Your task to perform on an android device: open app "Microsoft Excel" (install if not already installed) Image 0: 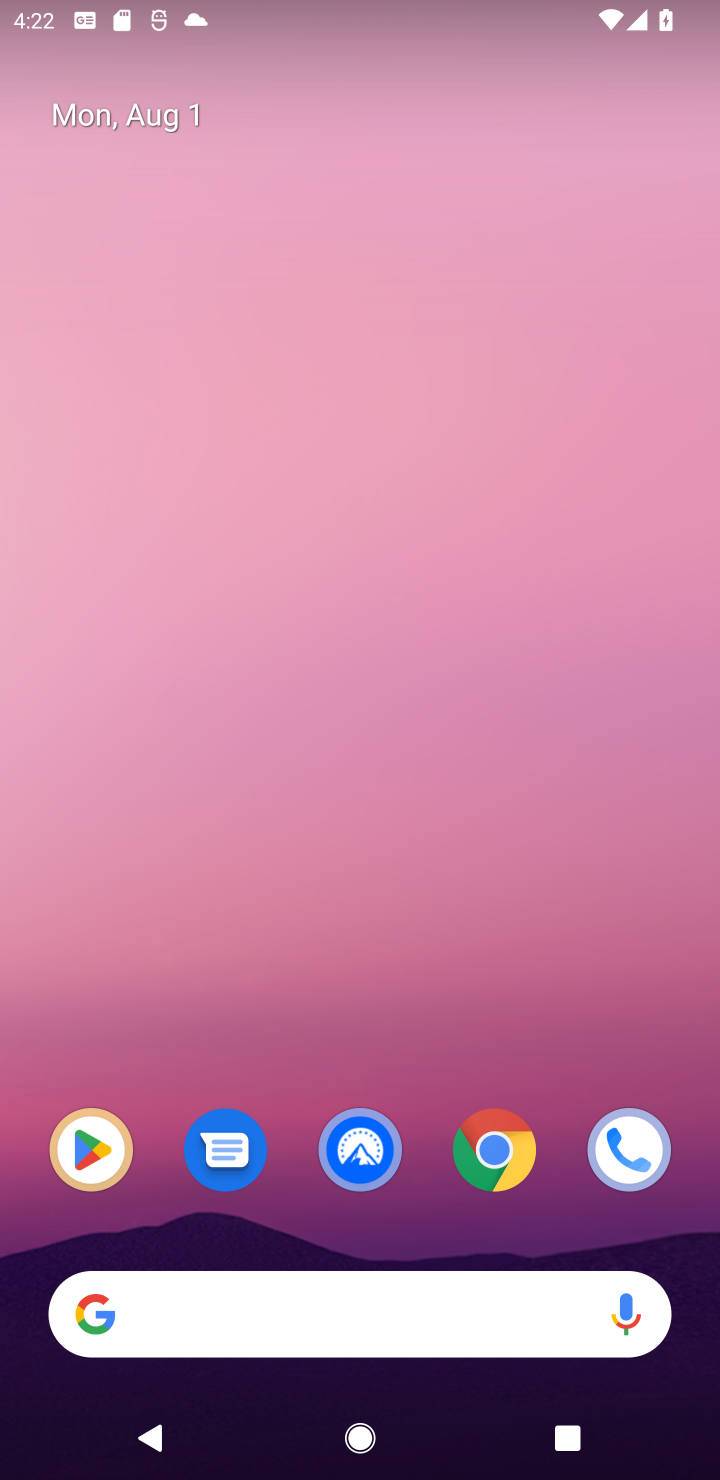
Step 0: click (83, 1169)
Your task to perform on an android device: open app "Microsoft Excel" (install if not already installed) Image 1: 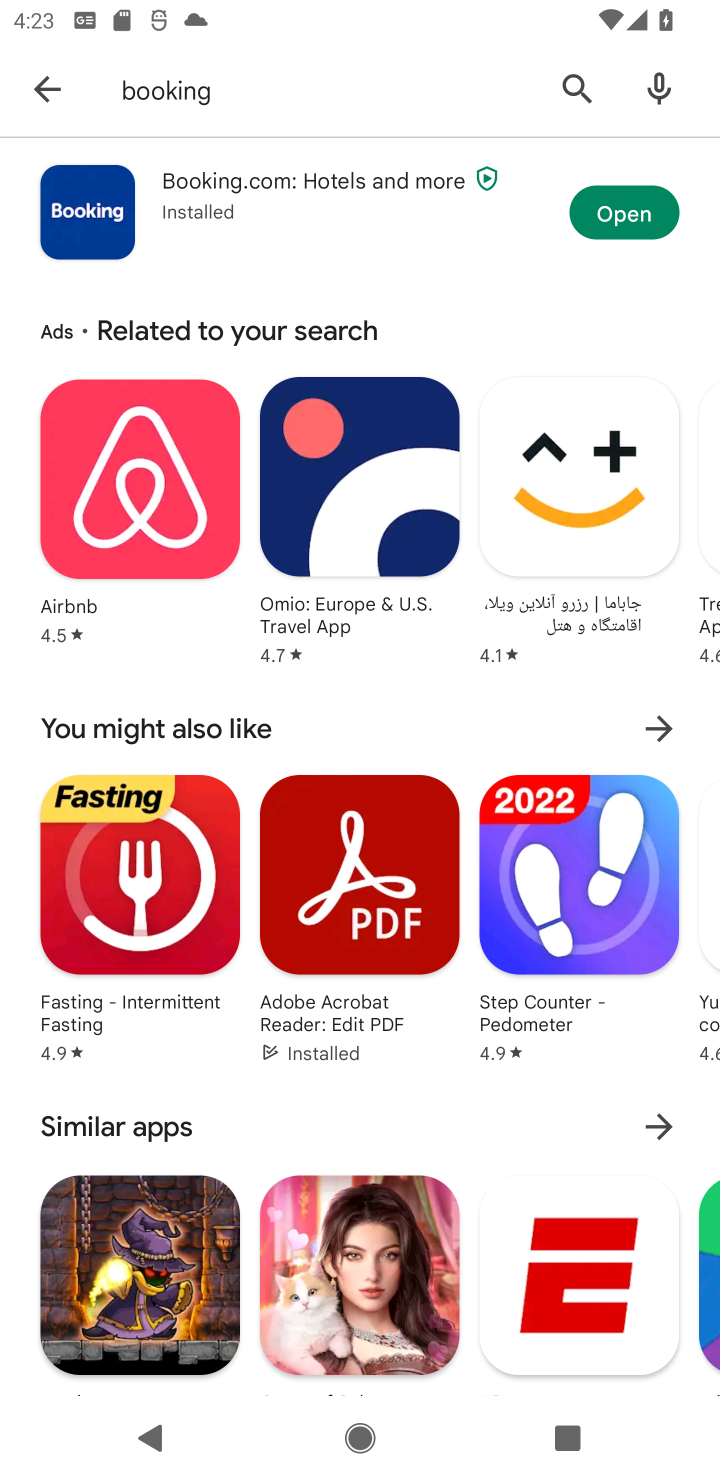
Step 1: click (565, 104)
Your task to perform on an android device: open app "Microsoft Excel" (install if not already installed) Image 2: 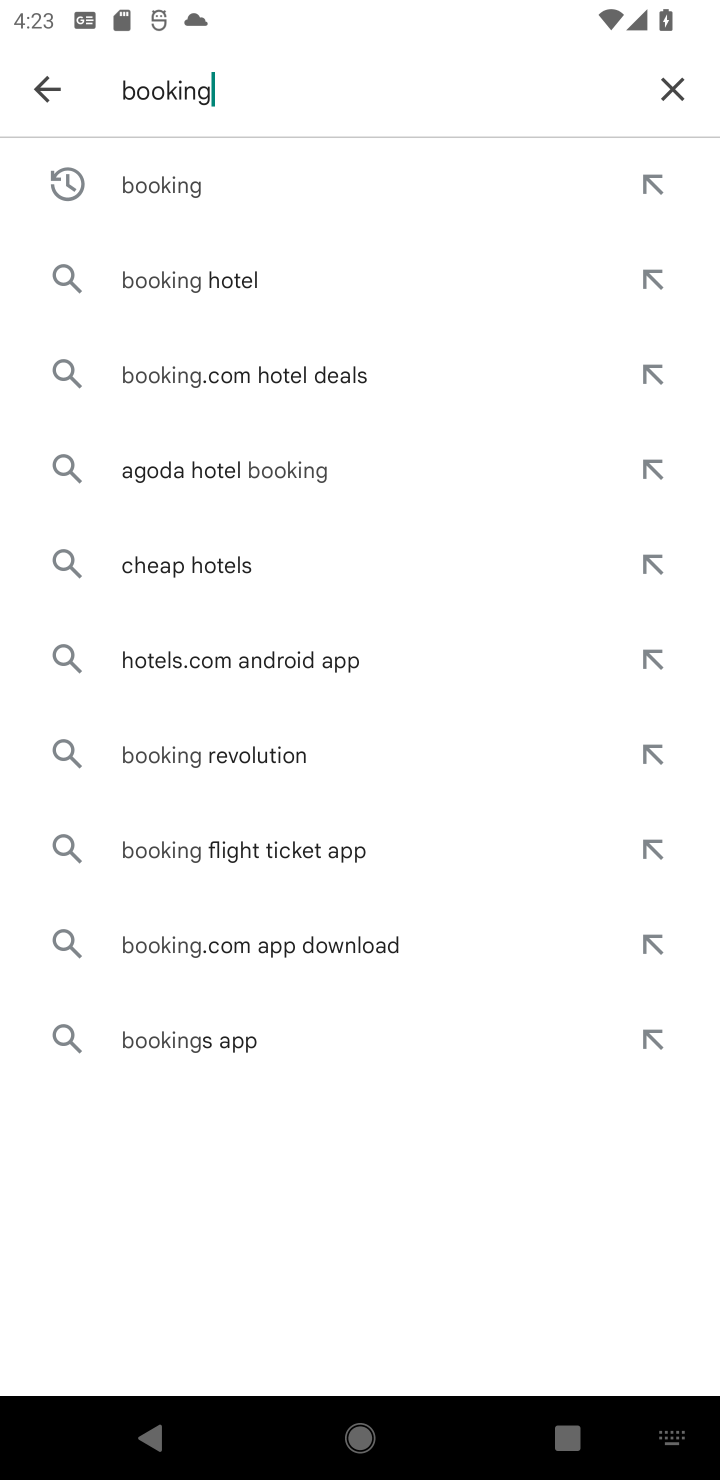
Step 2: click (668, 91)
Your task to perform on an android device: open app "Microsoft Excel" (install if not already installed) Image 3: 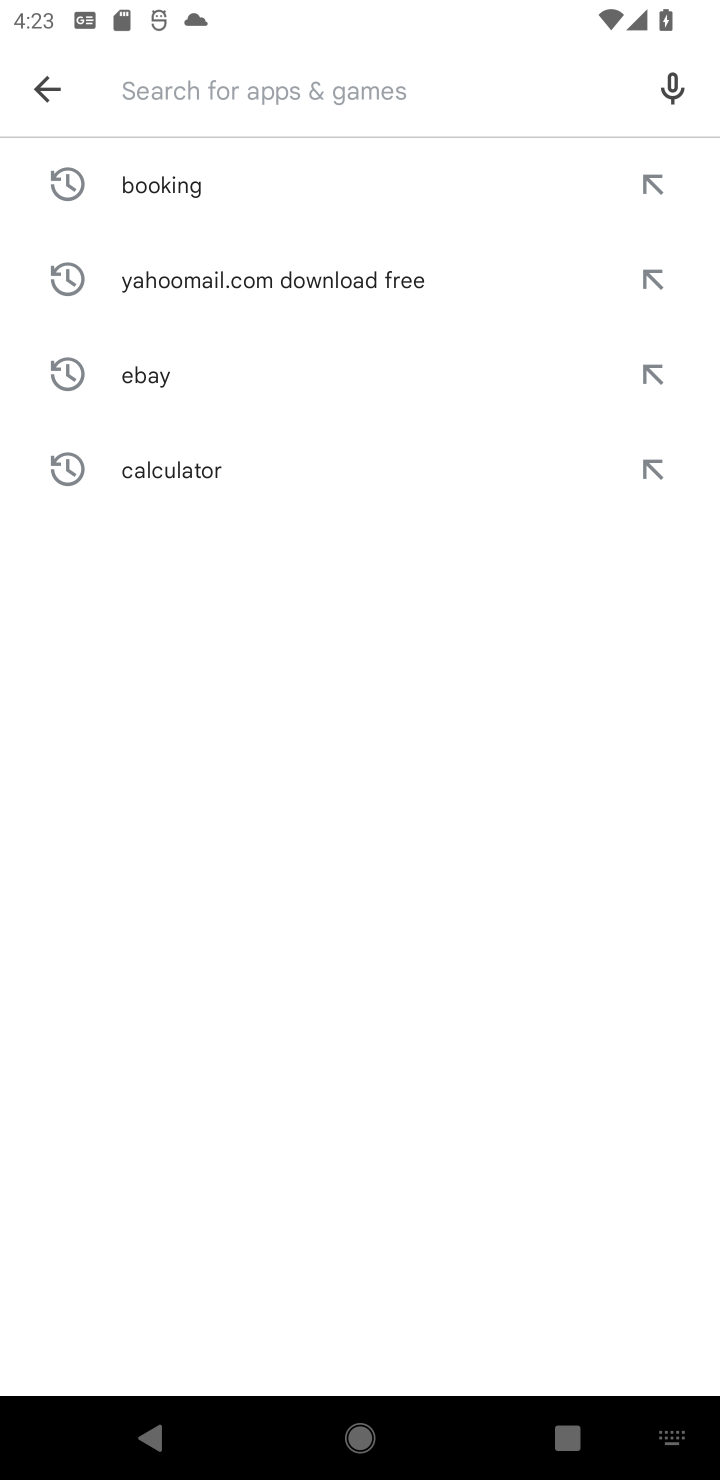
Step 3: type "excel"
Your task to perform on an android device: open app "Microsoft Excel" (install if not already installed) Image 4: 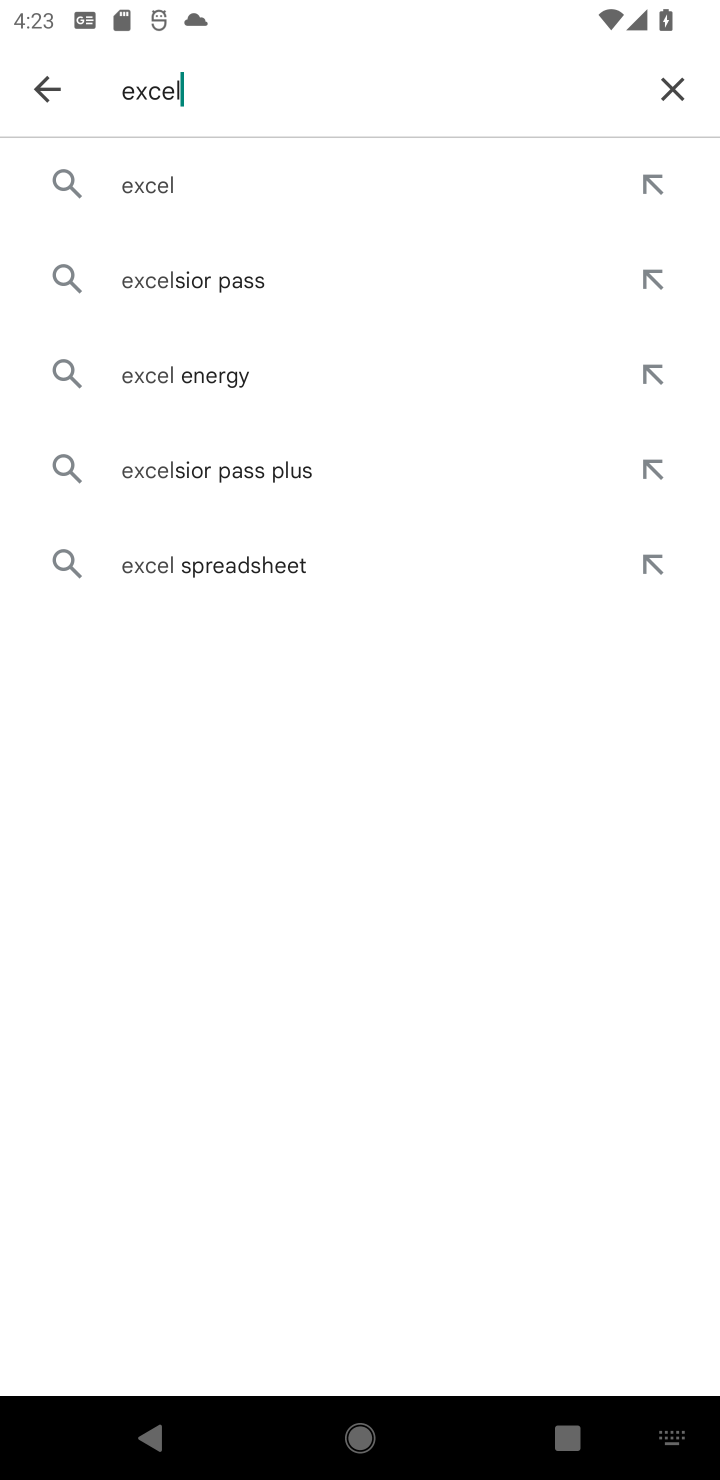
Step 4: click (245, 187)
Your task to perform on an android device: open app "Microsoft Excel" (install if not already installed) Image 5: 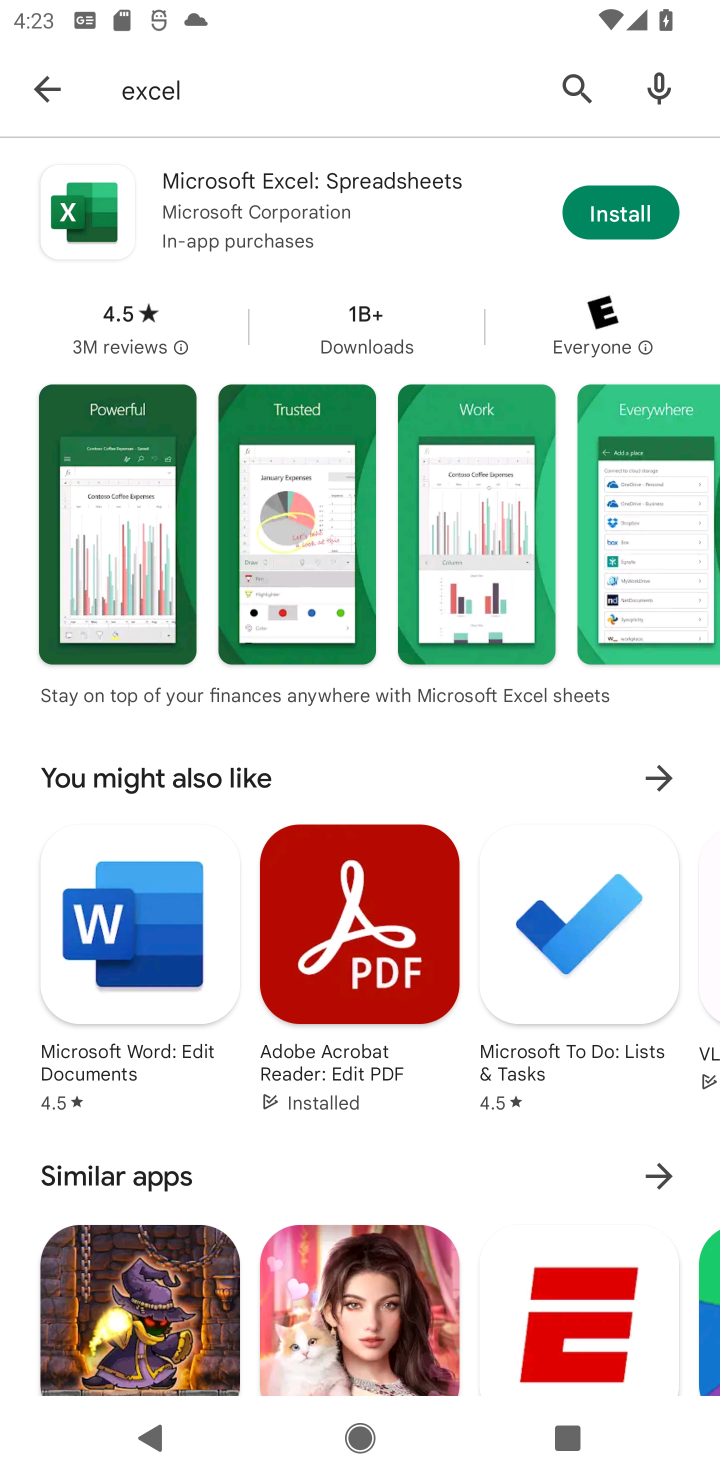
Step 5: click (590, 208)
Your task to perform on an android device: open app "Microsoft Excel" (install if not already installed) Image 6: 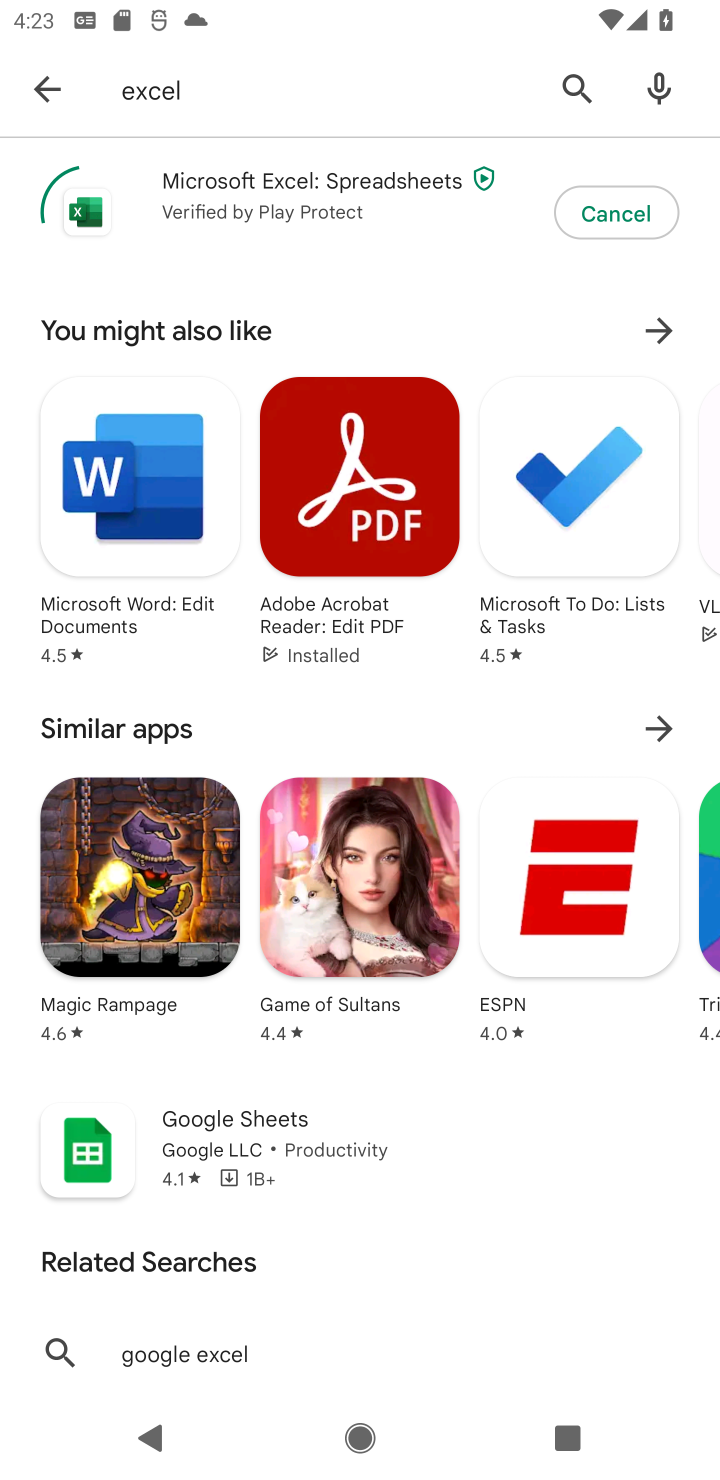
Step 6: task complete